Your task to perform on an android device: Open my contact list Image 0: 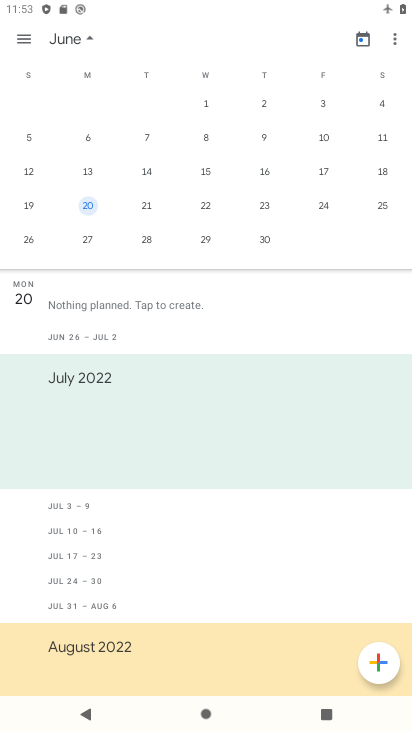
Step 0: press home button
Your task to perform on an android device: Open my contact list Image 1: 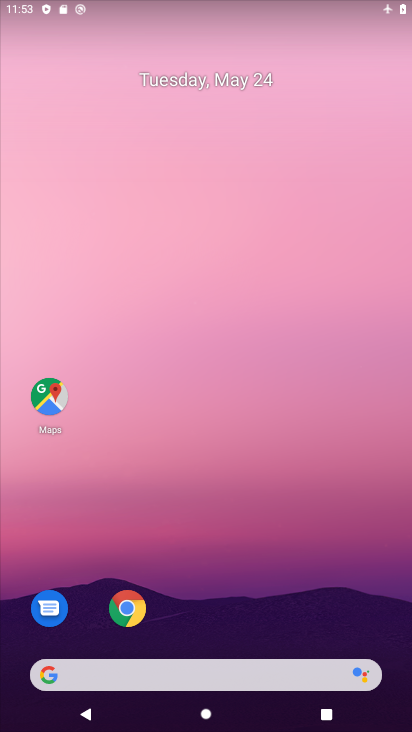
Step 1: drag from (251, 566) to (165, 153)
Your task to perform on an android device: Open my contact list Image 2: 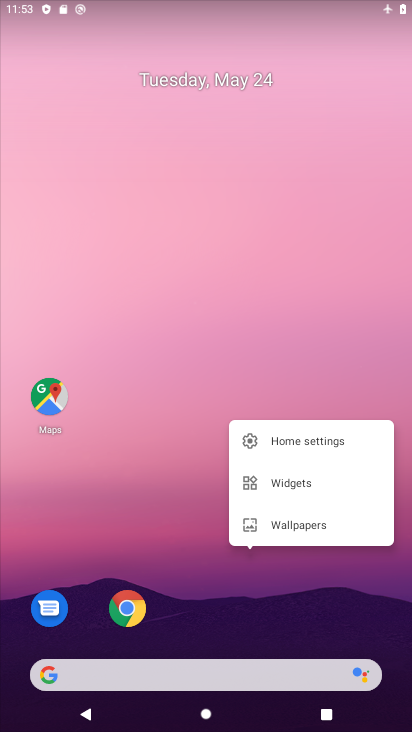
Step 2: click (149, 301)
Your task to perform on an android device: Open my contact list Image 3: 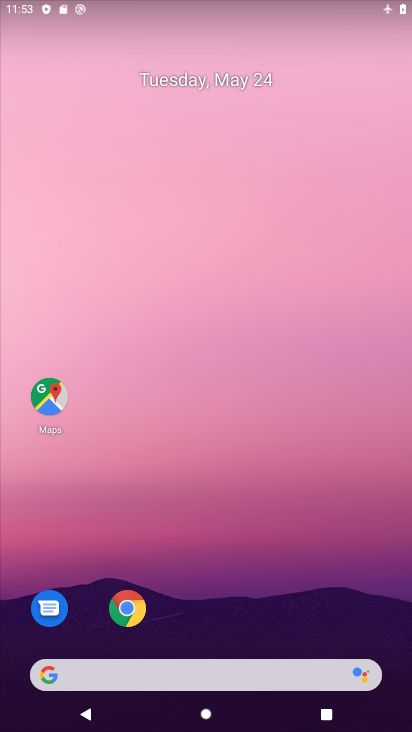
Step 3: drag from (239, 607) to (205, 327)
Your task to perform on an android device: Open my contact list Image 4: 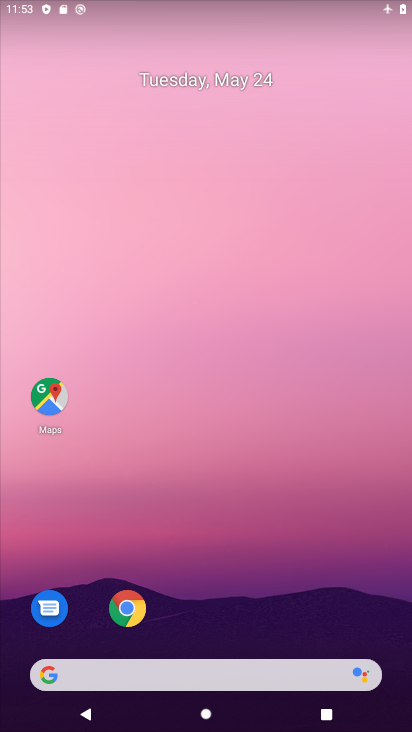
Step 4: drag from (226, 640) to (231, 285)
Your task to perform on an android device: Open my contact list Image 5: 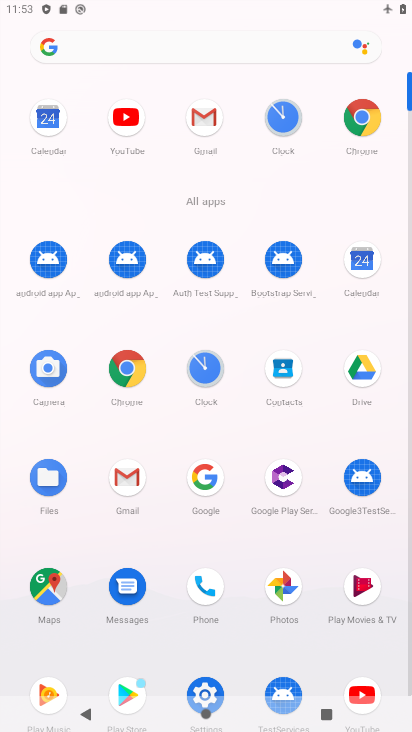
Step 5: click (56, 157)
Your task to perform on an android device: Open my contact list Image 6: 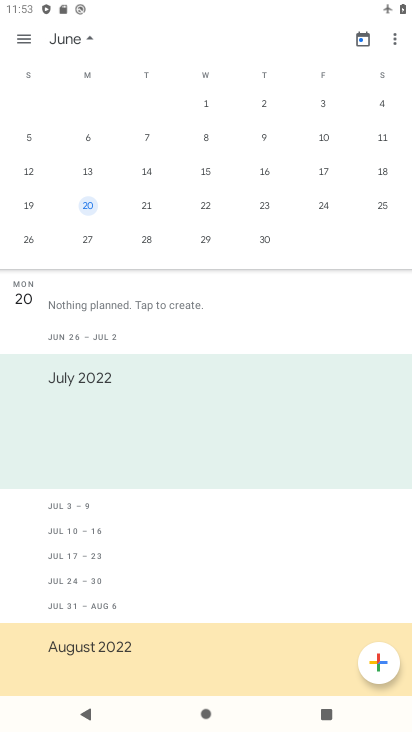
Step 6: press home button
Your task to perform on an android device: Open my contact list Image 7: 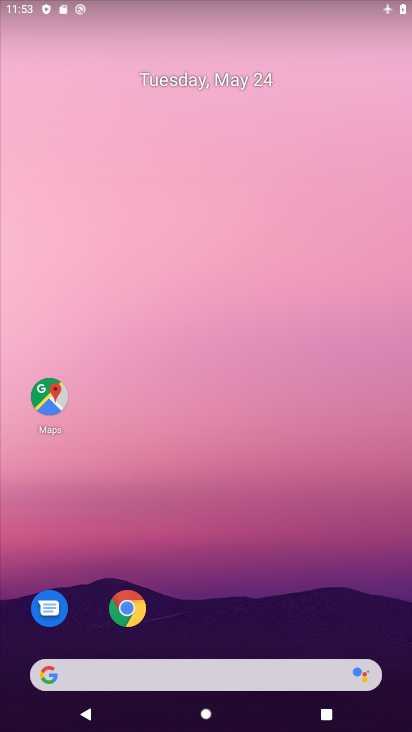
Step 7: drag from (235, 594) to (223, 87)
Your task to perform on an android device: Open my contact list Image 8: 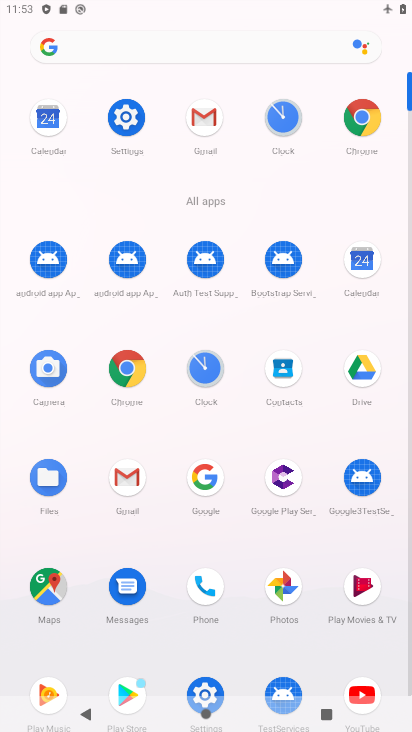
Step 8: click (302, 383)
Your task to perform on an android device: Open my contact list Image 9: 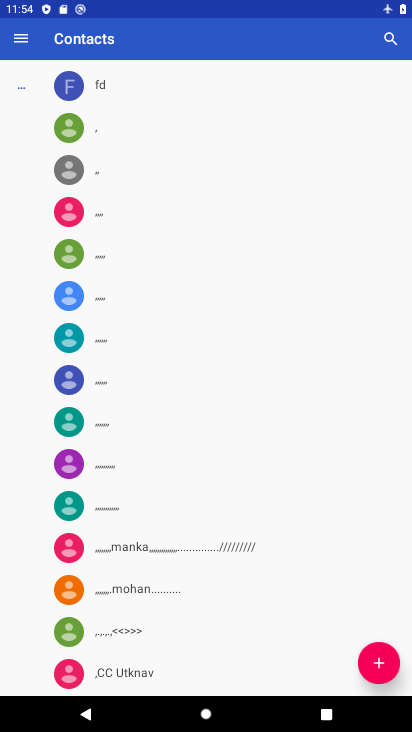
Step 9: task complete